Your task to perform on an android device: choose inbox layout in the gmail app Image 0: 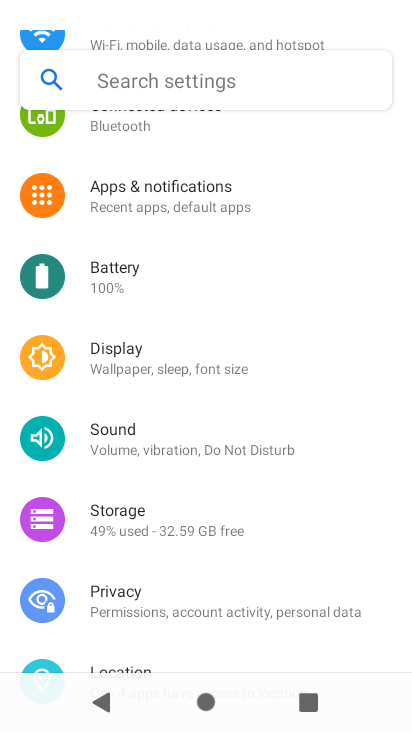
Step 0: press home button
Your task to perform on an android device: choose inbox layout in the gmail app Image 1: 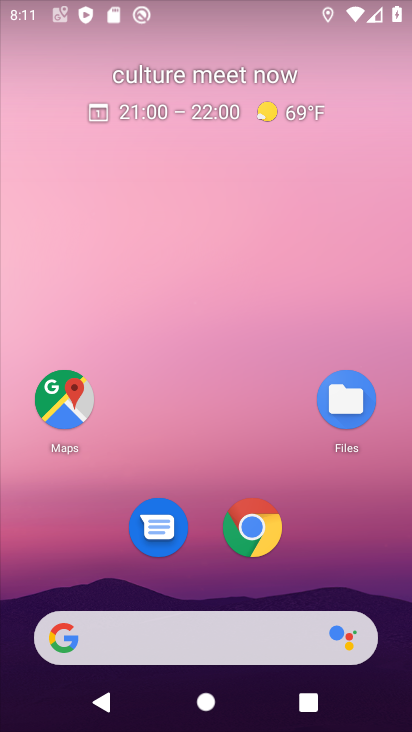
Step 1: drag from (202, 582) to (196, 108)
Your task to perform on an android device: choose inbox layout in the gmail app Image 2: 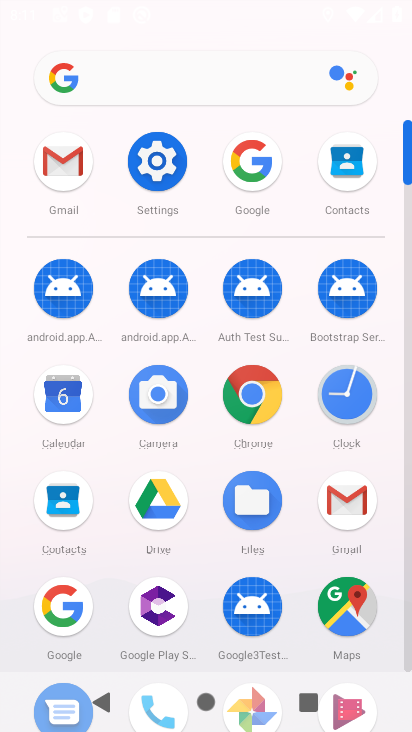
Step 2: click (62, 160)
Your task to perform on an android device: choose inbox layout in the gmail app Image 3: 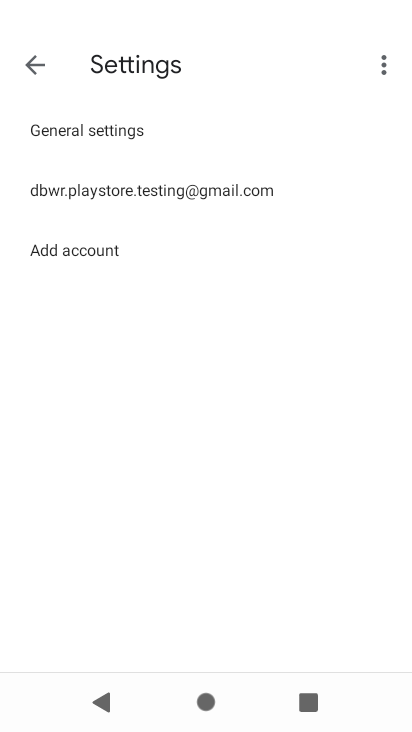
Step 3: click (104, 198)
Your task to perform on an android device: choose inbox layout in the gmail app Image 4: 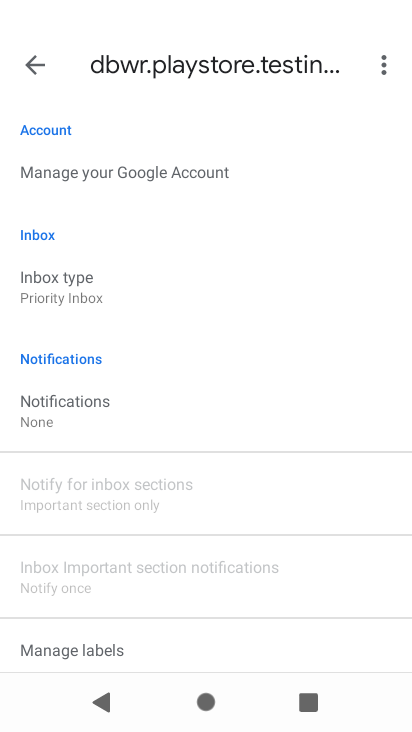
Step 4: click (64, 311)
Your task to perform on an android device: choose inbox layout in the gmail app Image 5: 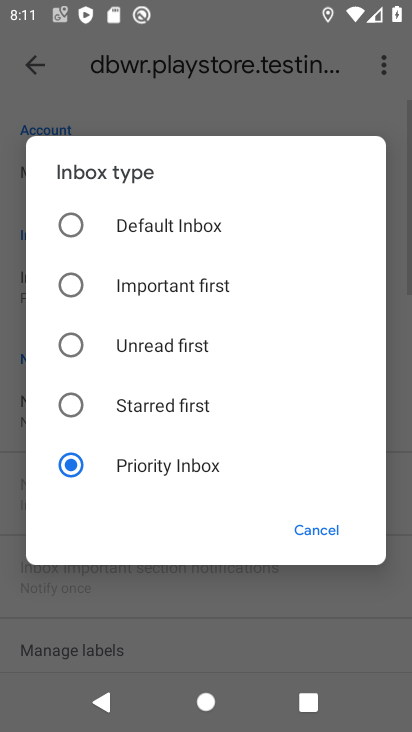
Step 5: click (78, 238)
Your task to perform on an android device: choose inbox layout in the gmail app Image 6: 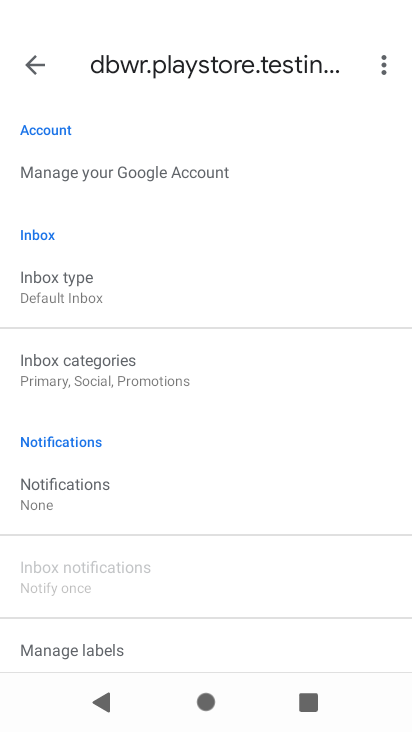
Step 6: task complete